Your task to perform on an android device: turn on sleep mode Image 0: 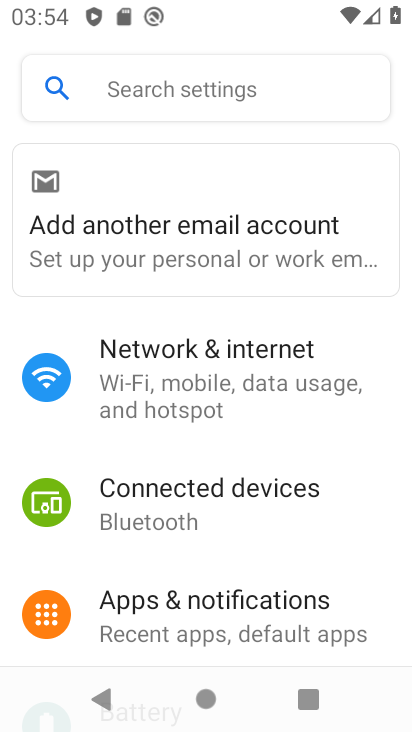
Step 0: press home button
Your task to perform on an android device: turn on sleep mode Image 1: 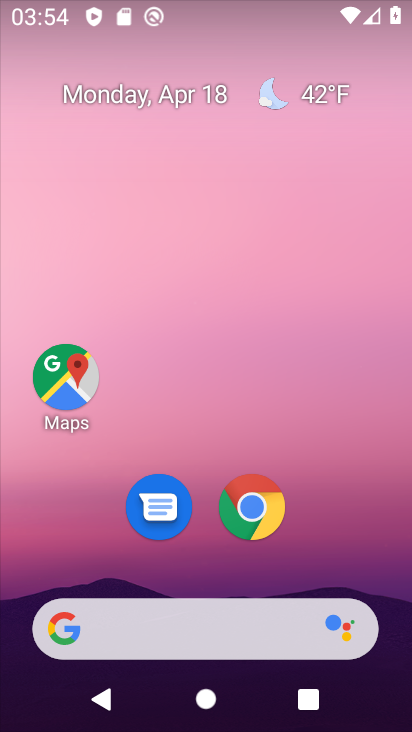
Step 1: drag from (247, 514) to (317, 112)
Your task to perform on an android device: turn on sleep mode Image 2: 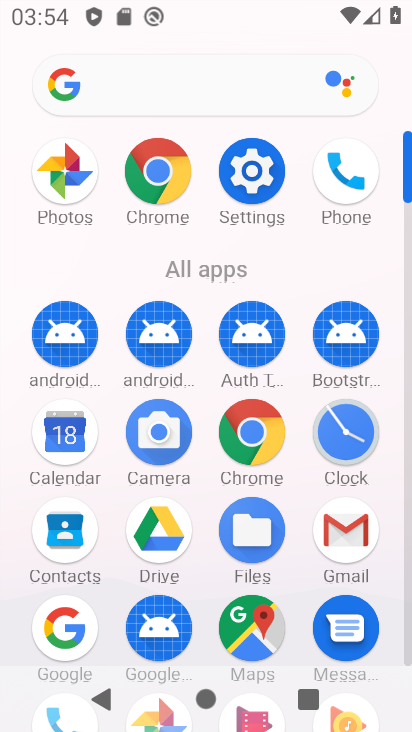
Step 2: click (261, 167)
Your task to perform on an android device: turn on sleep mode Image 3: 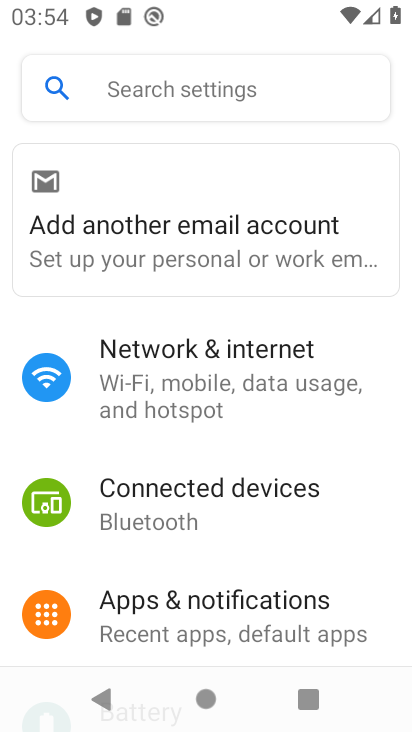
Step 3: drag from (215, 508) to (295, 227)
Your task to perform on an android device: turn on sleep mode Image 4: 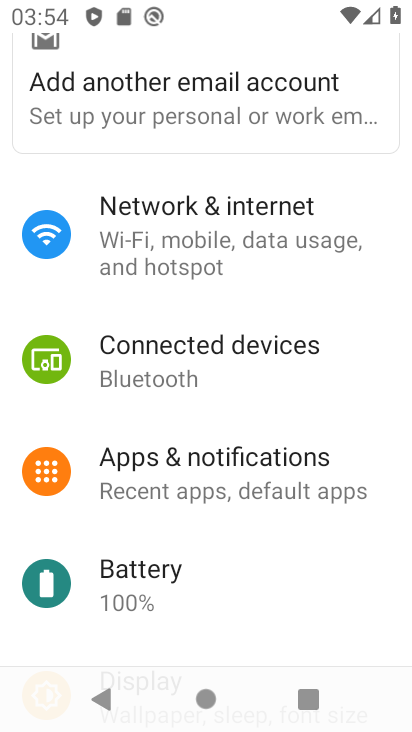
Step 4: drag from (232, 500) to (313, 207)
Your task to perform on an android device: turn on sleep mode Image 5: 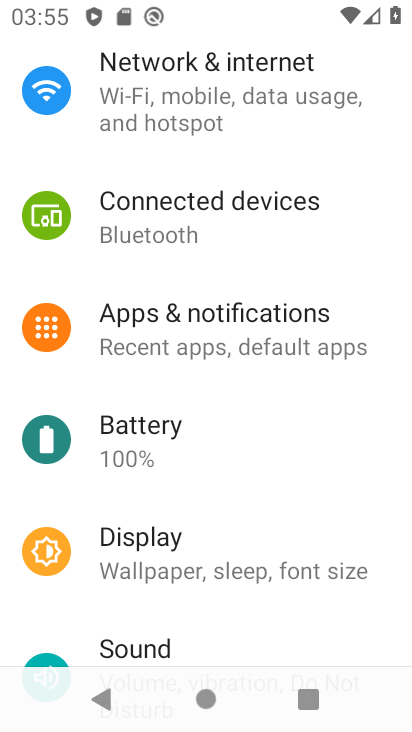
Step 5: click (212, 573)
Your task to perform on an android device: turn on sleep mode Image 6: 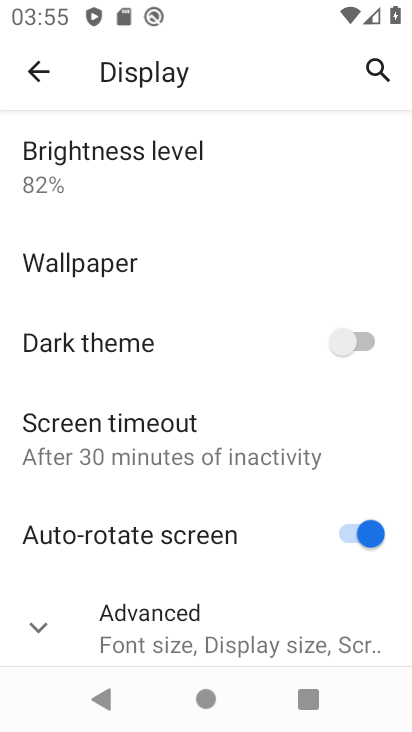
Step 6: task complete